Your task to perform on an android device: Open internet settings Image 0: 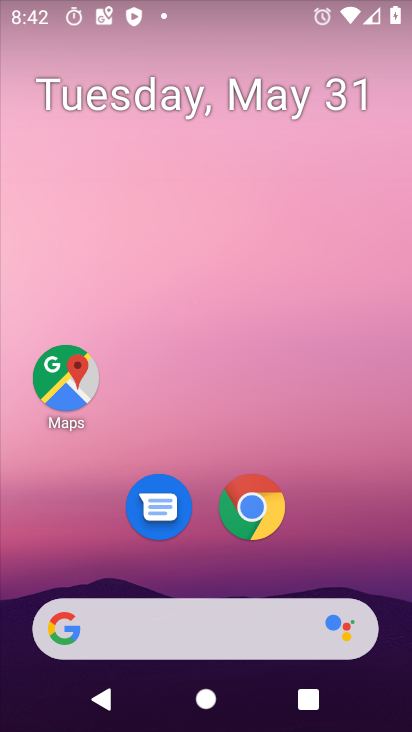
Step 0: drag from (336, 573) to (323, 0)
Your task to perform on an android device: Open internet settings Image 1: 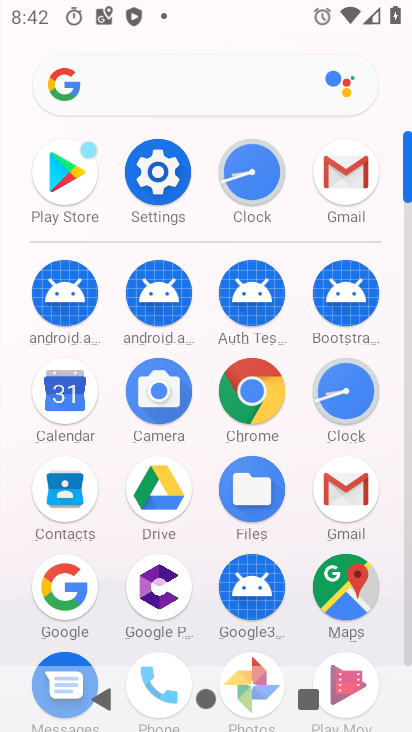
Step 1: click (156, 167)
Your task to perform on an android device: Open internet settings Image 2: 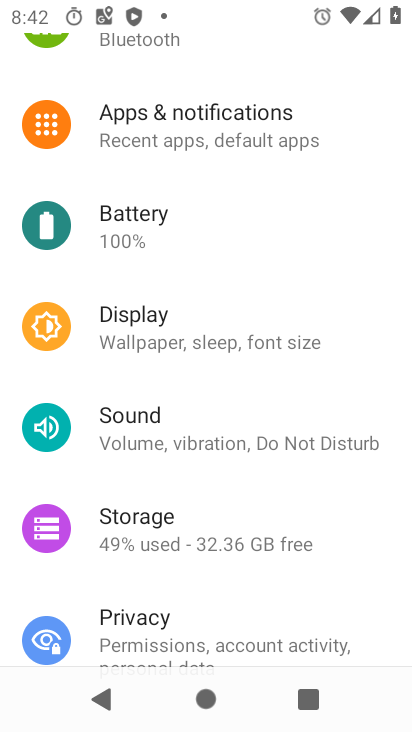
Step 2: drag from (369, 157) to (385, 681)
Your task to perform on an android device: Open internet settings Image 3: 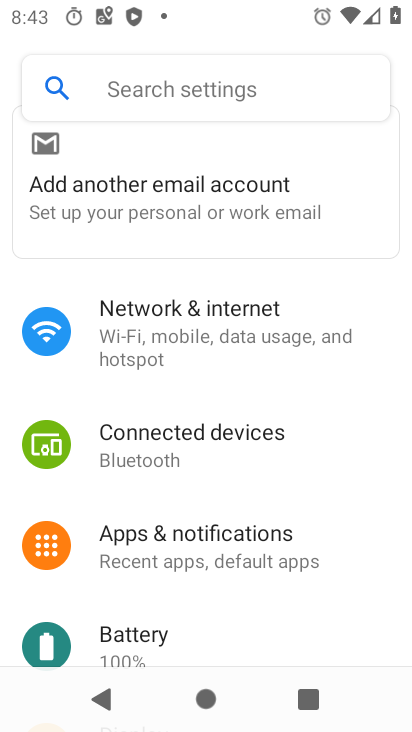
Step 3: click (145, 340)
Your task to perform on an android device: Open internet settings Image 4: 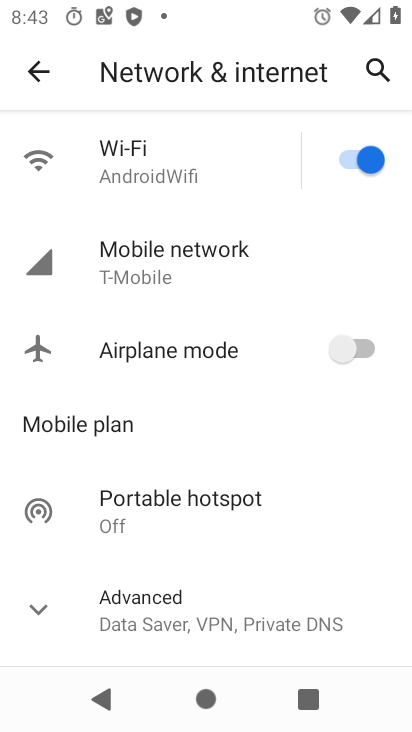
Step 4: task complete